Your task to perform on an android device: change the clock display to analog Image 0: 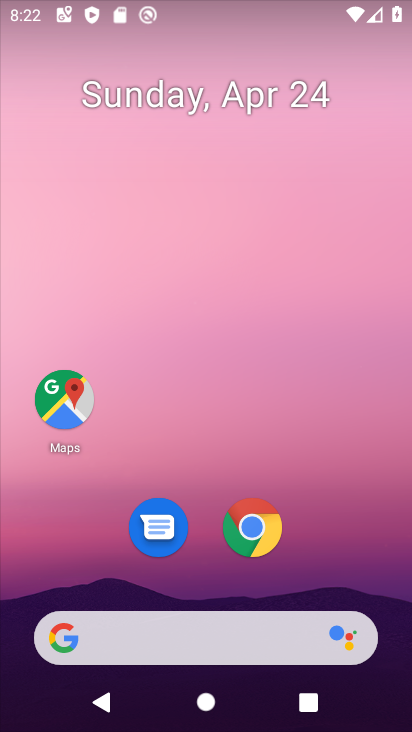
Step 0: drag from (380, 591) to (299, 39)
Your task to perform on an android device: change the clock display to analog Image 1: 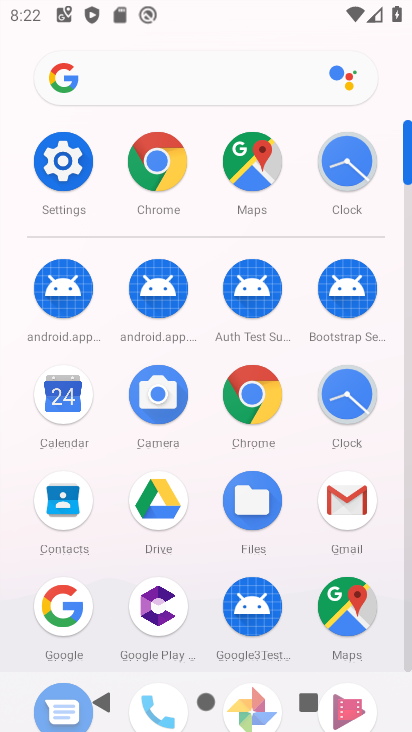
Step 1: click (348, 161)
Your task to perform on an android device: change the clock display to analog Image 2: 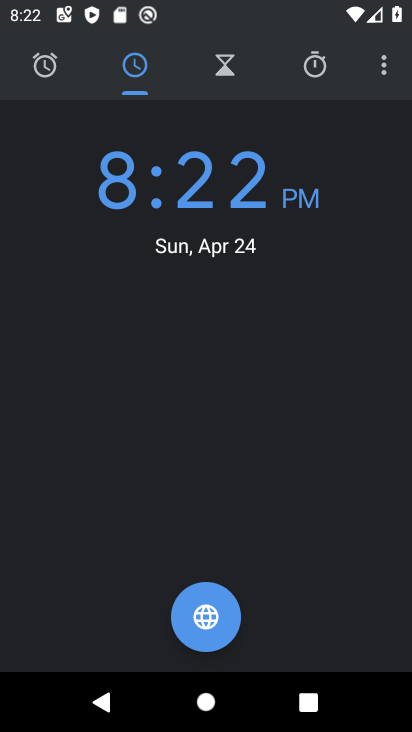
Step 2: click (380, 52)
Your task to perform on an android device: change the clock display to analog Image 3: 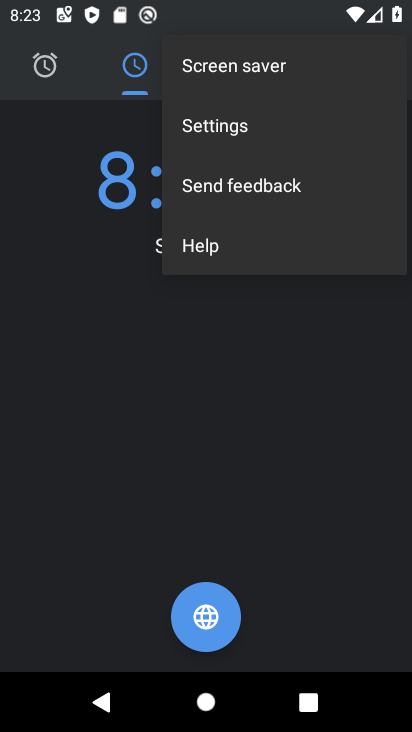
Step 3: click (249, 117)
Your task to perform on an android device: change the clock display to analog Image 4: 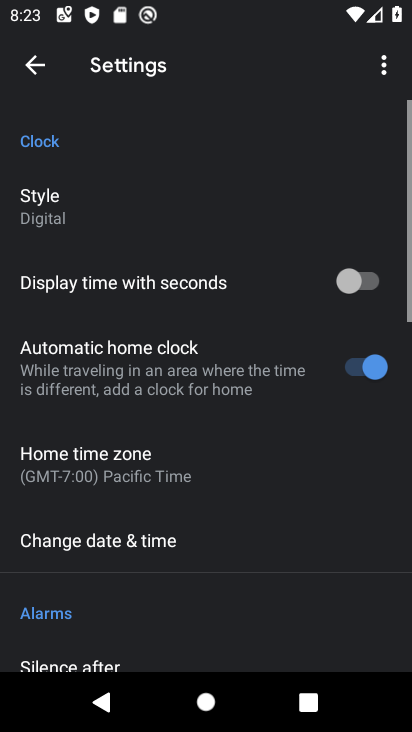
Step 4: click (84, 195)
Your task to perform on an android device: change the clock display to analog Image 5: 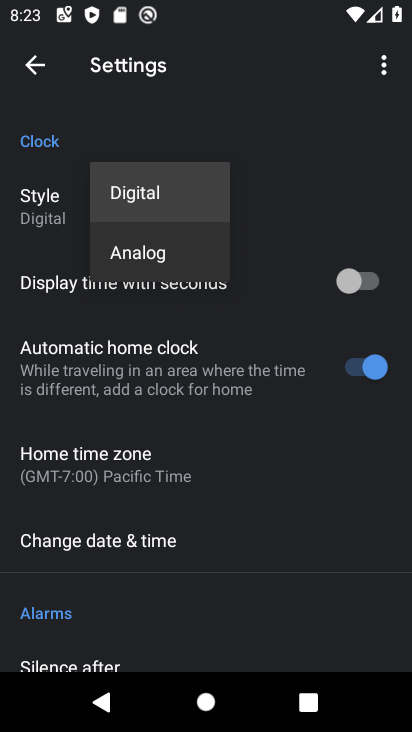
Step 5: click (148, 264)
Your task to perform on an android device: change the clock display to analog Image 6: 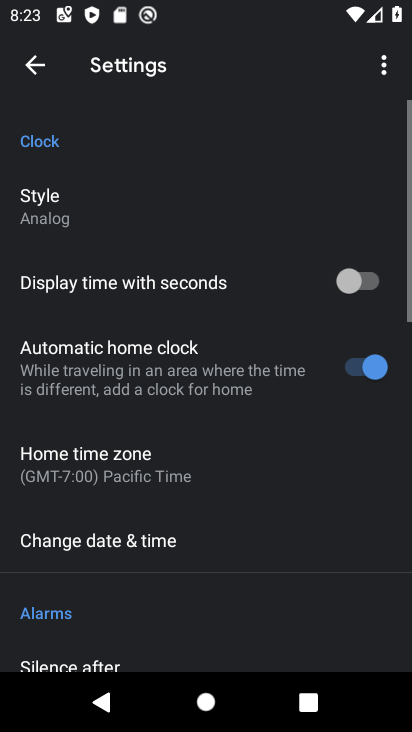
Step 6: task complete